Your task to perform on an android device: Check out the best rated electric trimmers on Lowe's Image 0: 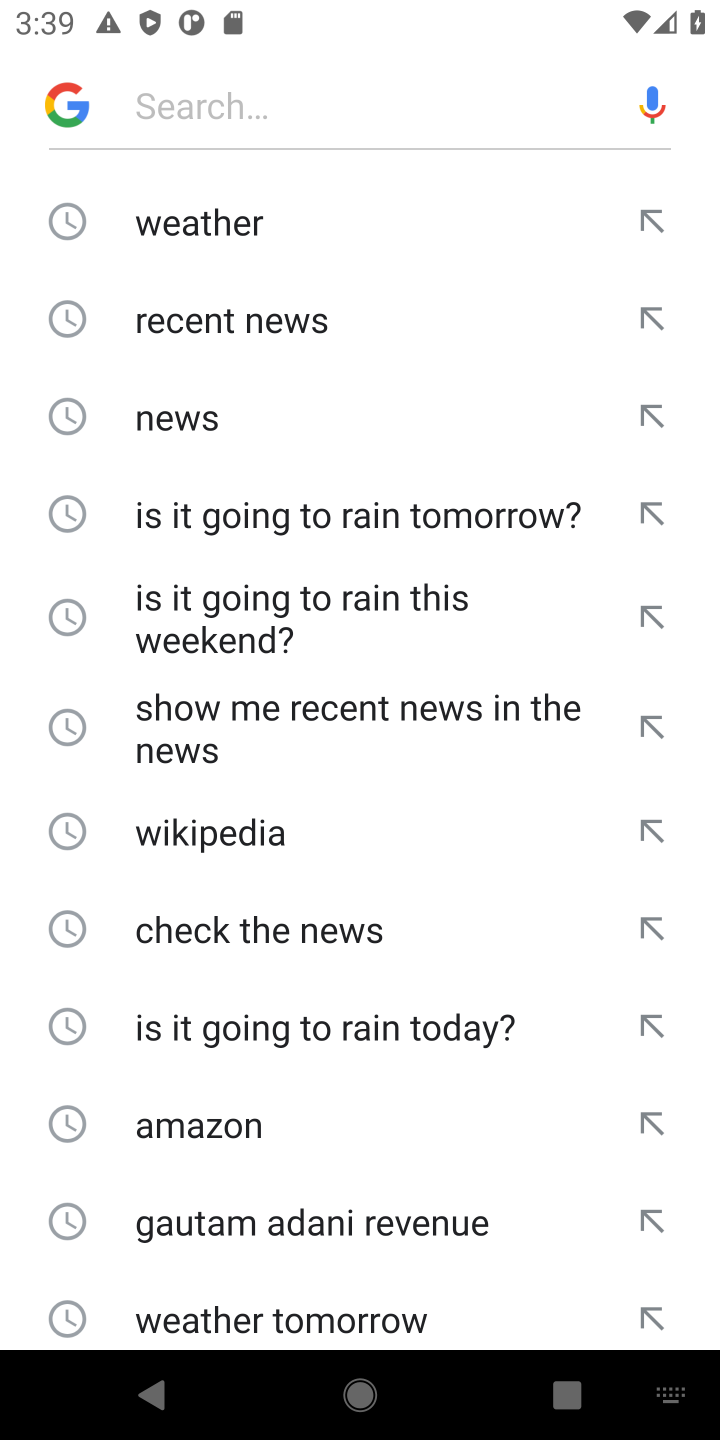
Step 0: press home button
Your task to perform on an android device: Check out the best rated electric trimmers on Lowe's Image 1: 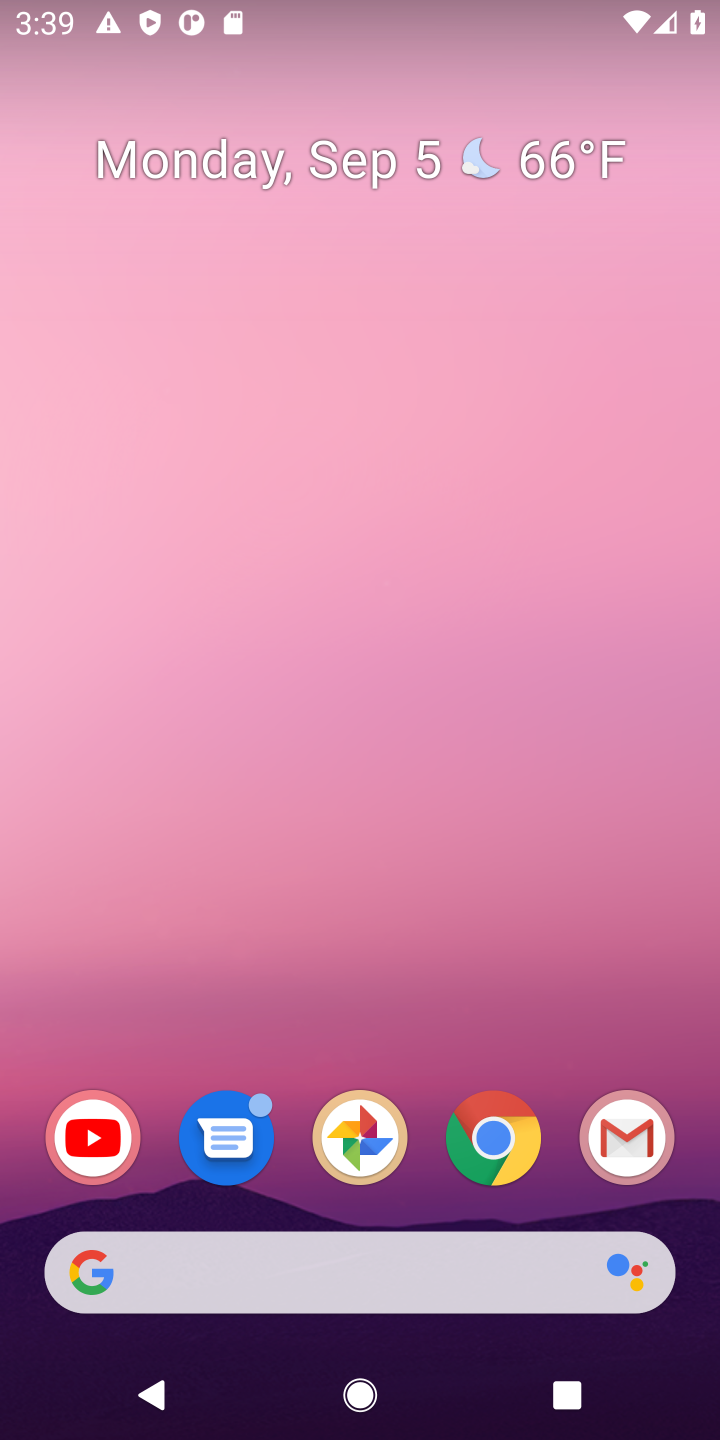
Step 1: click (503, 1180)
Your task to perform on an android device: Check out the best rated electric trimmers on Lowe's Image 2: 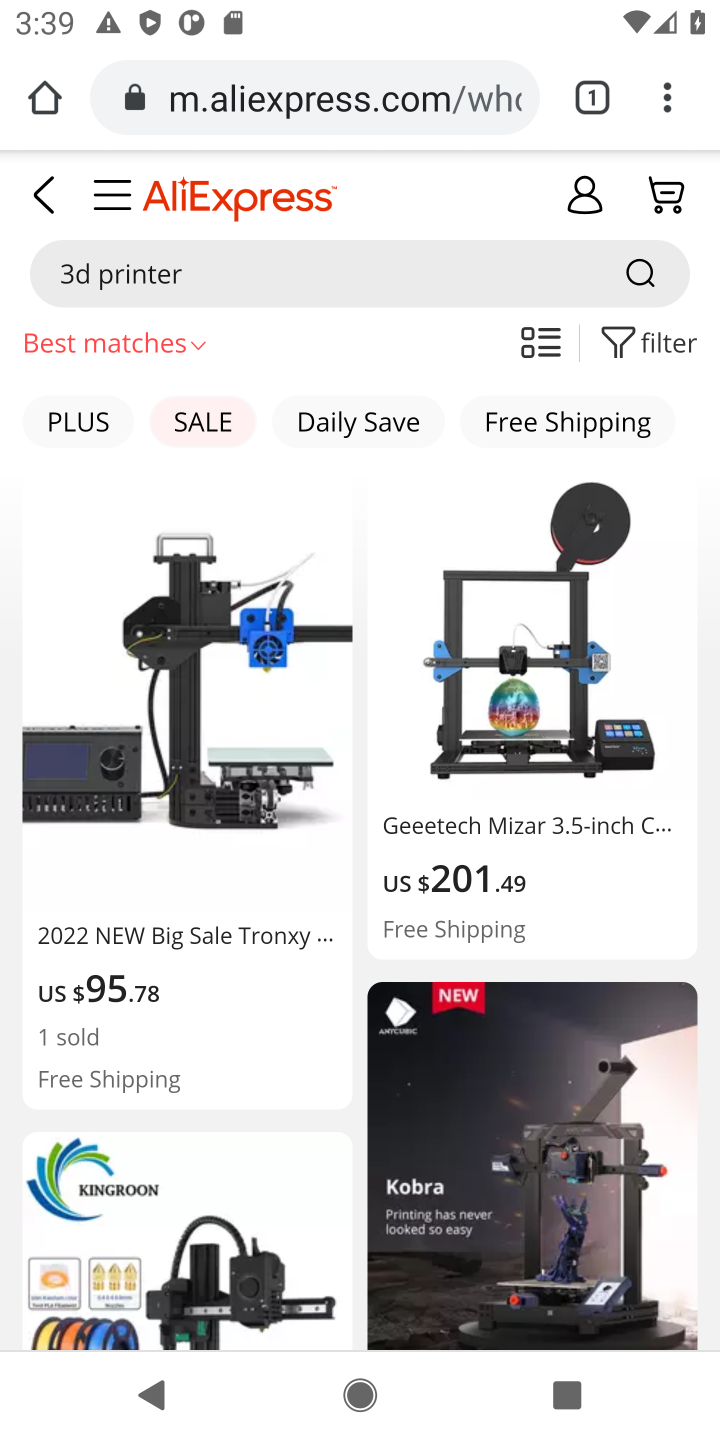
Step 2: click (329, 82)
Your task to perform on an android device: Check out the best rated electric trimmers on Lowe's Image 3: 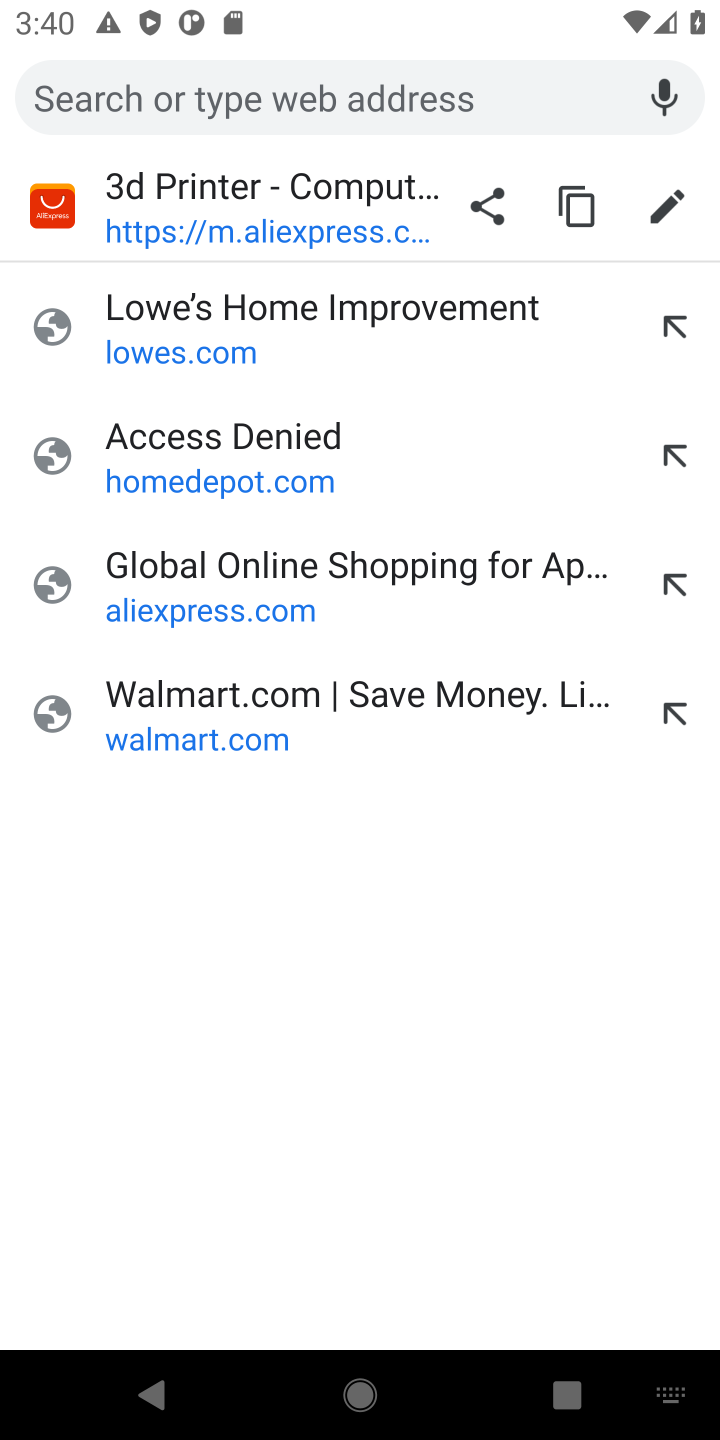
Step 3: type "lowes"
Your task to perform on an android device: Check out the best rated electric trimmers on Lowe's Image 4: 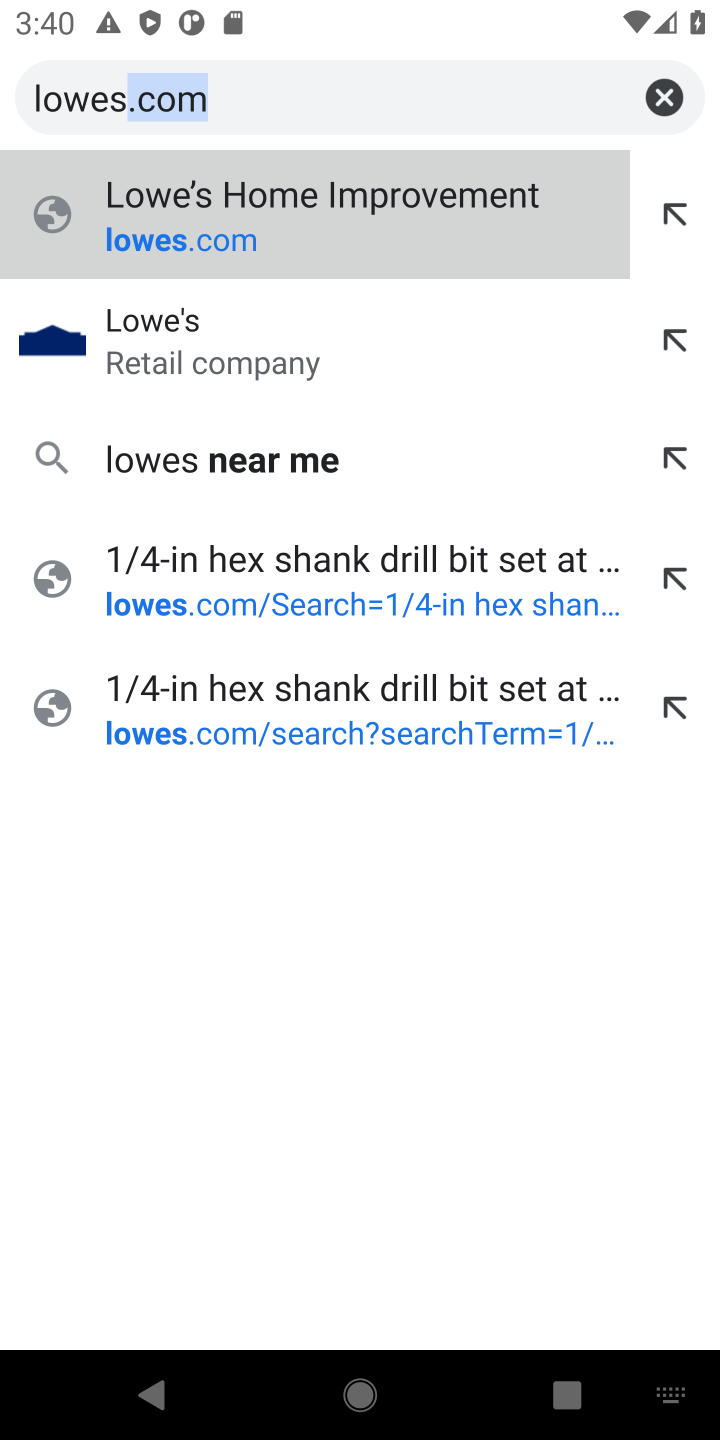
Step 4: click (205, 212)
Your task to perform on an android device: Check out the best rated electric trimmers on Lowe's Image 5: 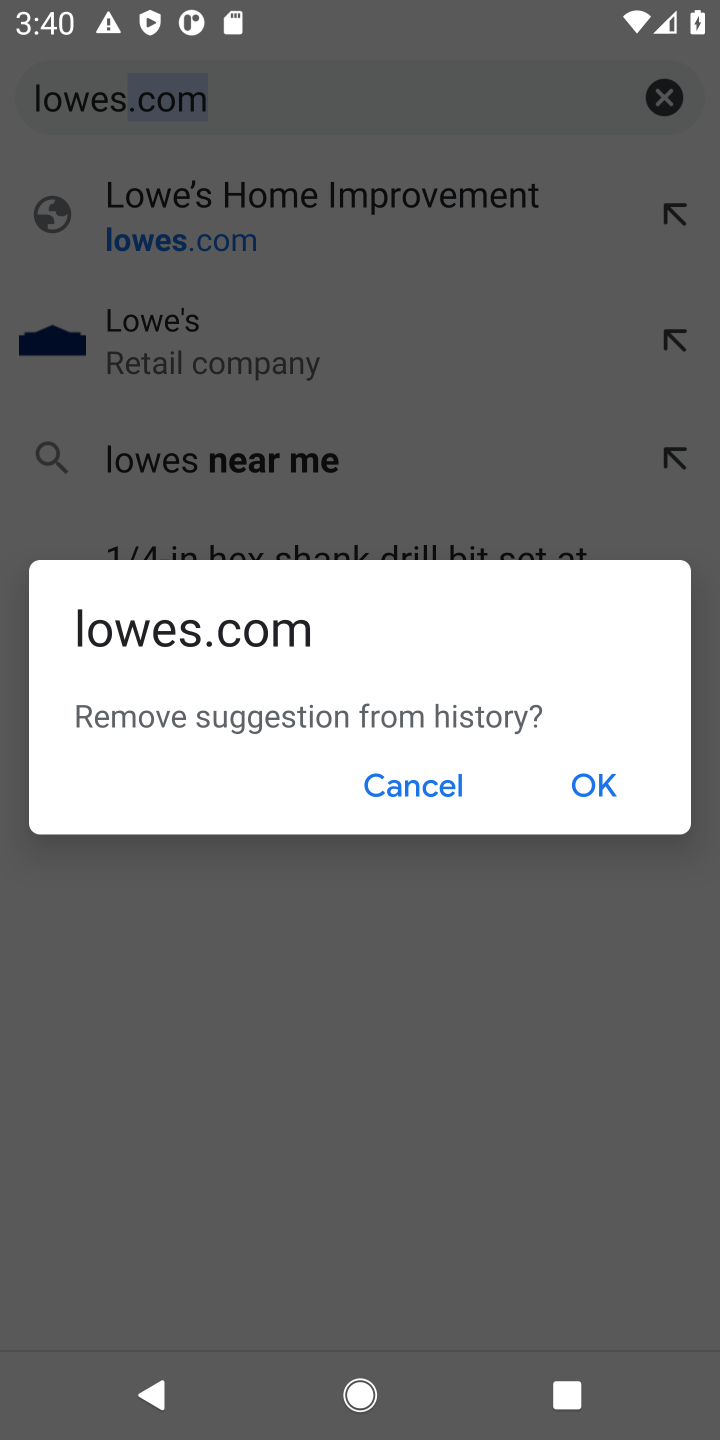
Step 5: click (399, 780)
Your task to perform on an android device: Check out the best rated electric trimmers on Lowe's Image 6: 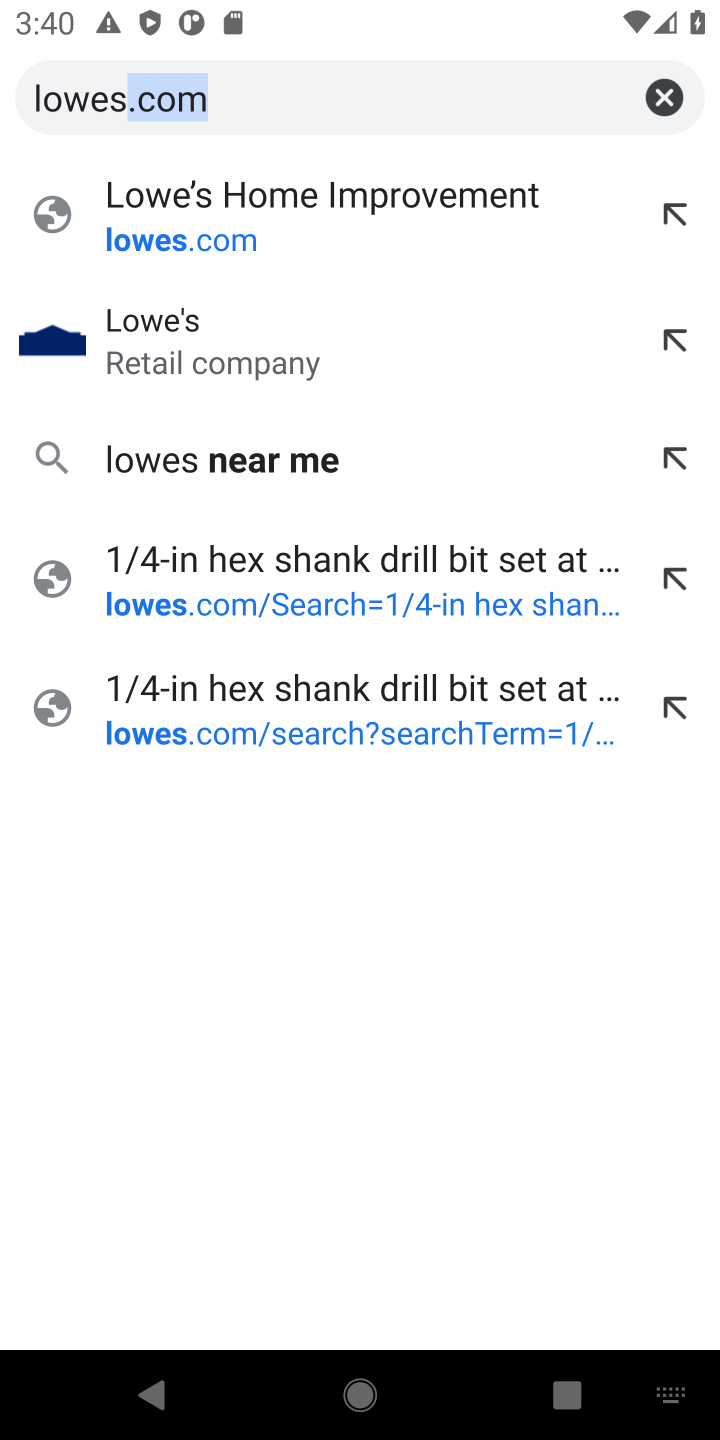
Step 6: click (231, 240)
Your task to perform on an android device: Check out the best rated electric trimmers on Lowe's Image 7: 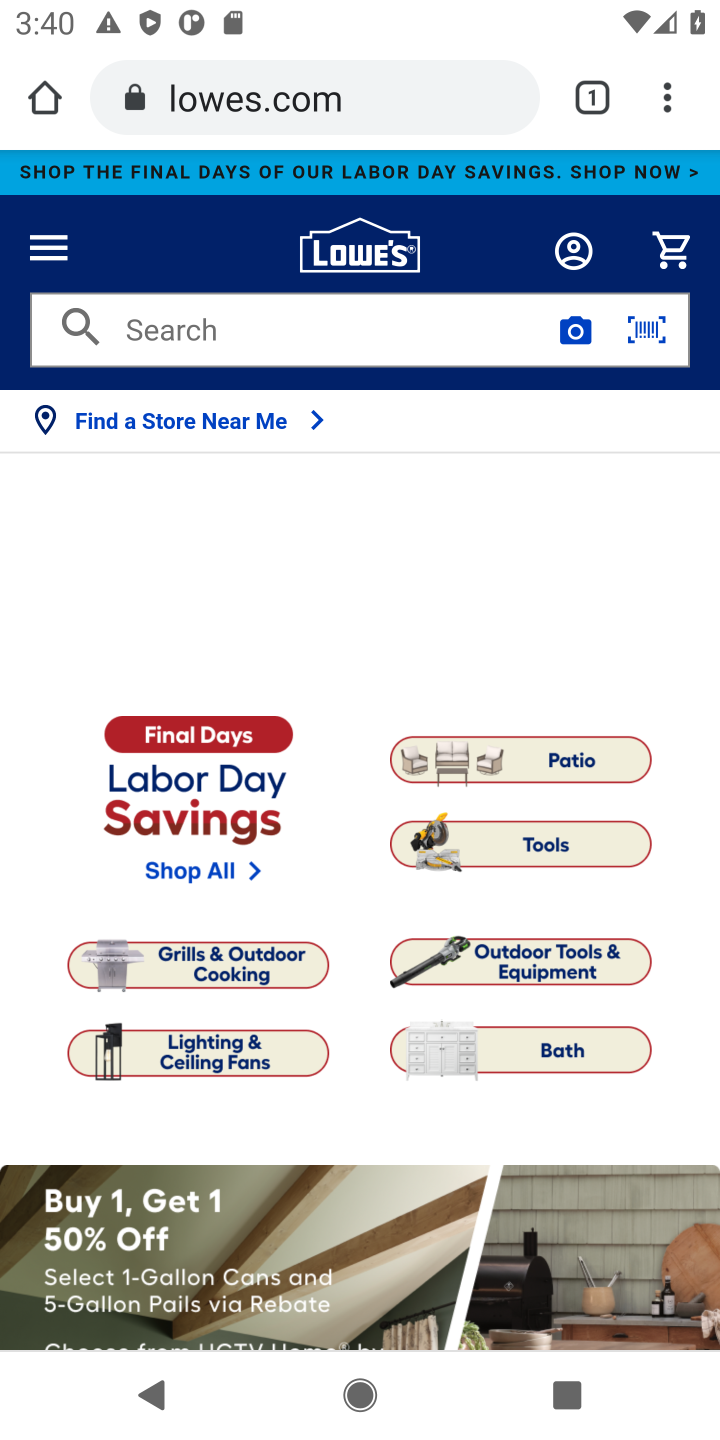
Step 7: click (292, 323)
Your task to perform on an android device: Check out the best rated electric trimmers on Lowe's Image 8: 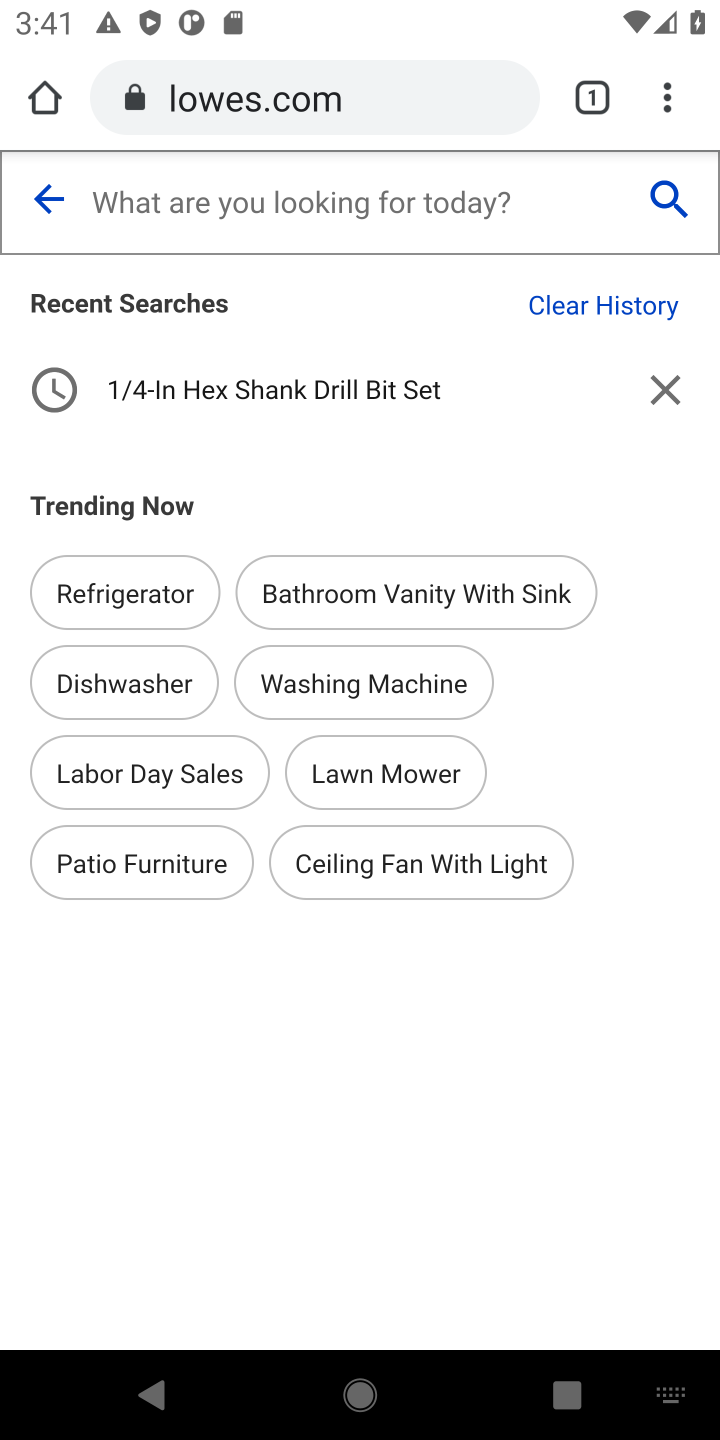
Step 8: type "best rated electric trimmers"
Your task to perform on an android device: Check out the best rated electric trimmers on Lowe's Image 9: 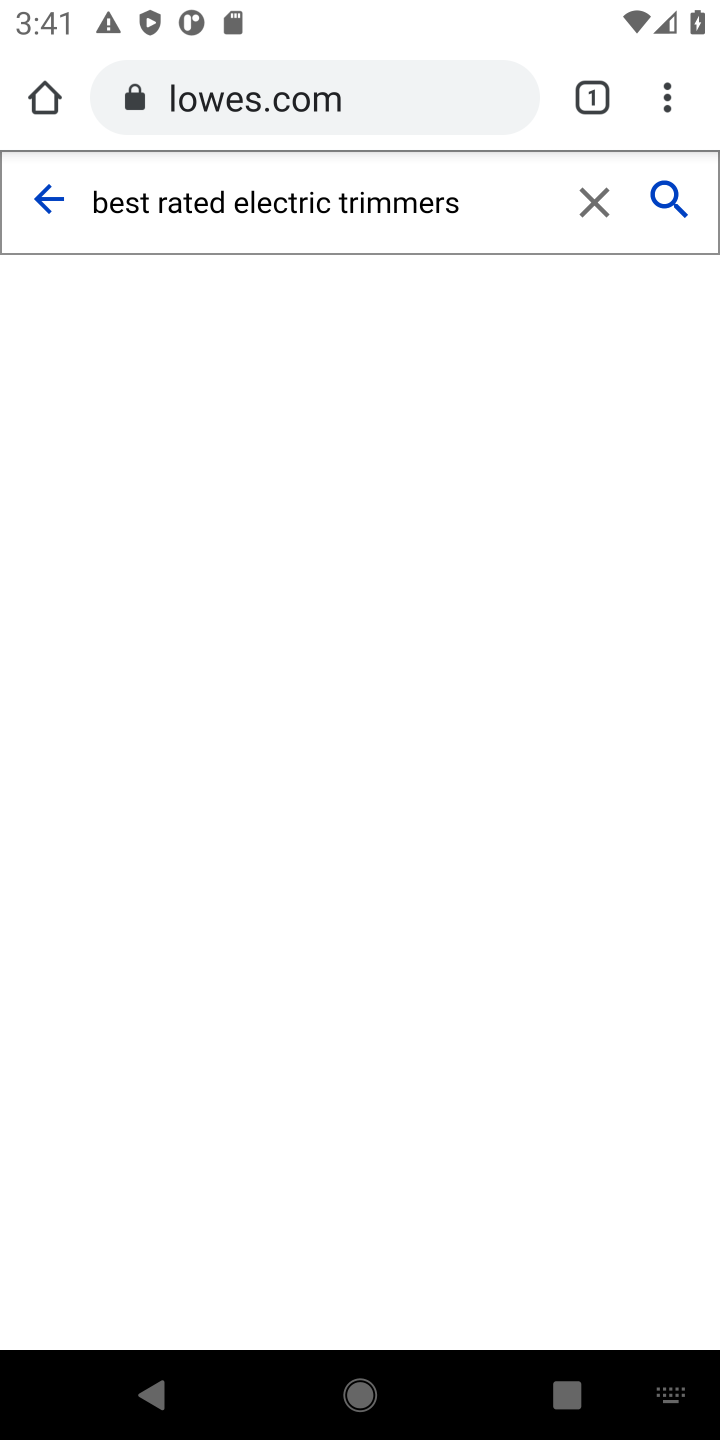
Step 9: click (660, 198)
Your task to perform on an android device: Check out the best rated electric trimmers on Lowe's Image 10: 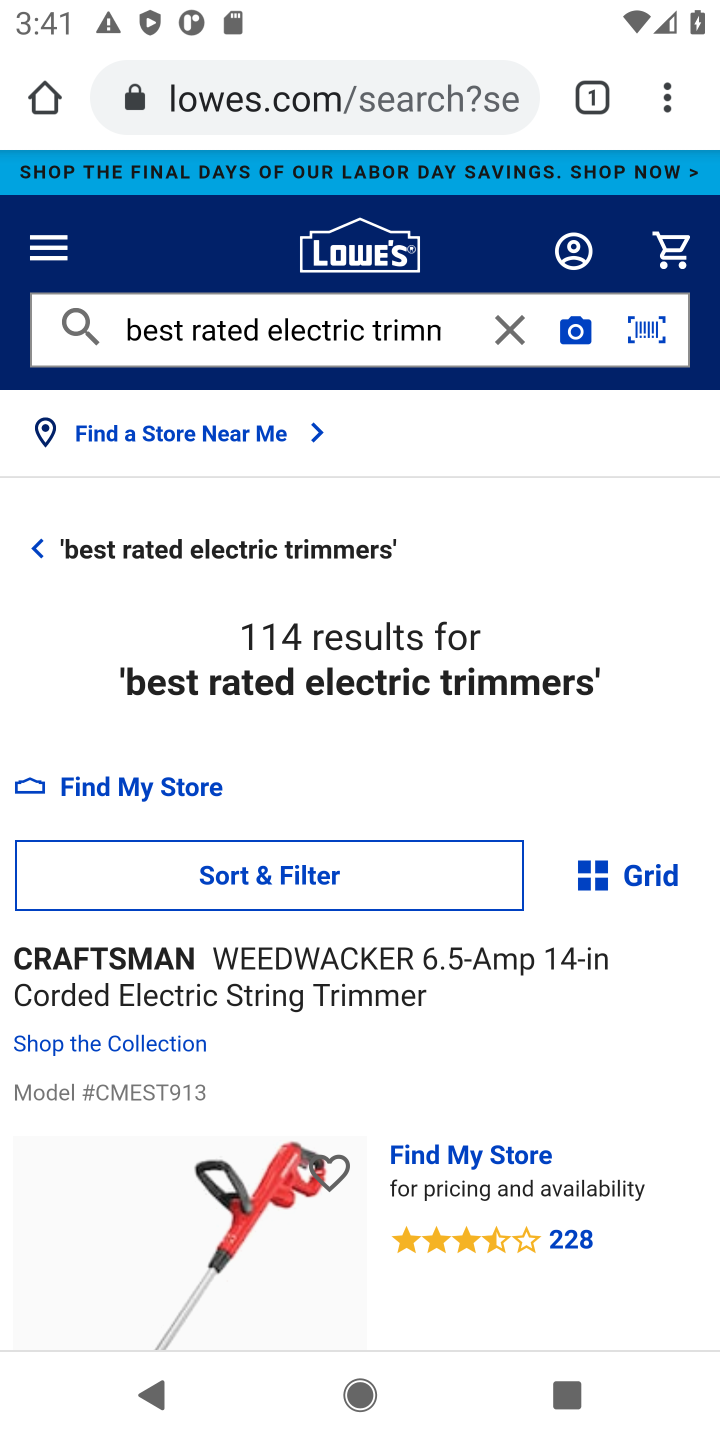
Step 10: task complete